Your task to perform on an android device: Open the web browser Image 0: 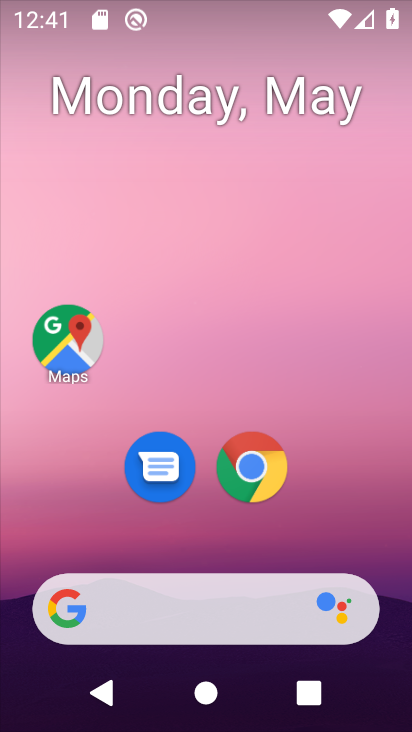
Step 0: drag from (212, 540) to (239, 99)
Your task to perform on an android device: Open the web browser Image 1: 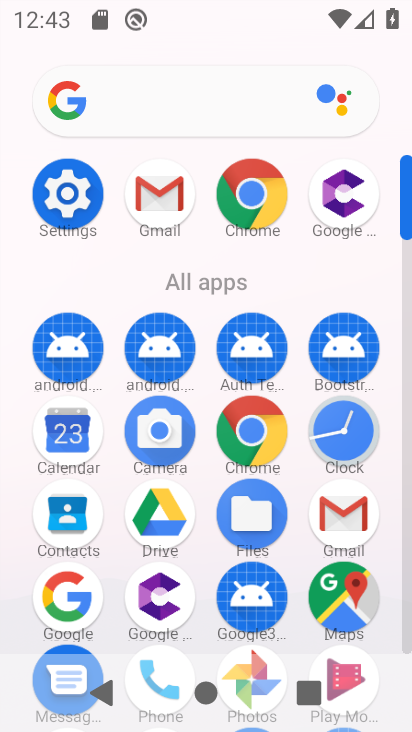
Step 1: click (251, 211)
Your task to perform on an android device: Open the web browser Image 2: 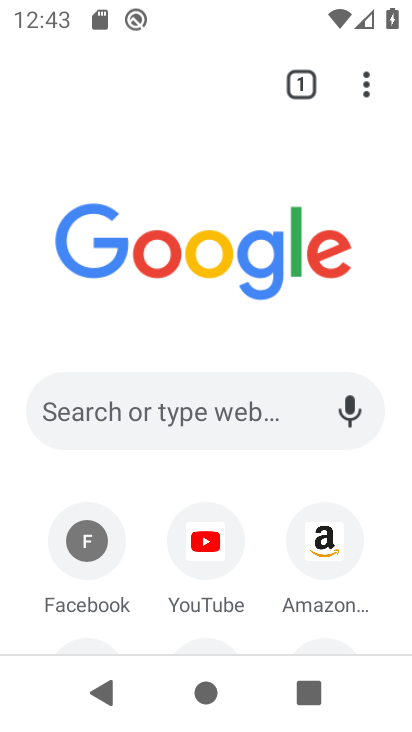
Step 2: task complete